Your task to perform on an android device: open a new tab in the chrome app Image 0: 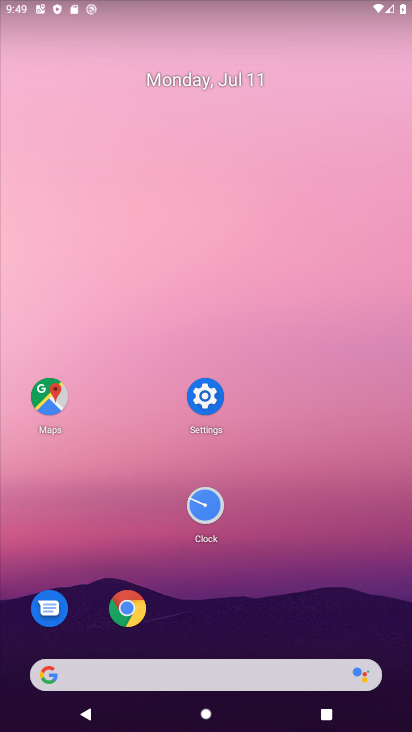
Step 0: click (132, 598)
Your task to perform on an android device: open a new tab in the chrome app Image 1: 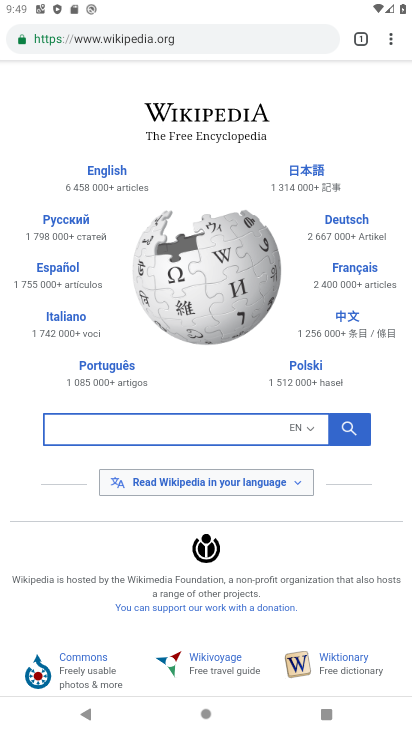
Step 1: click (392, 38)
Your task to perform on an android device: open a new tab in the chrome app Image 2: 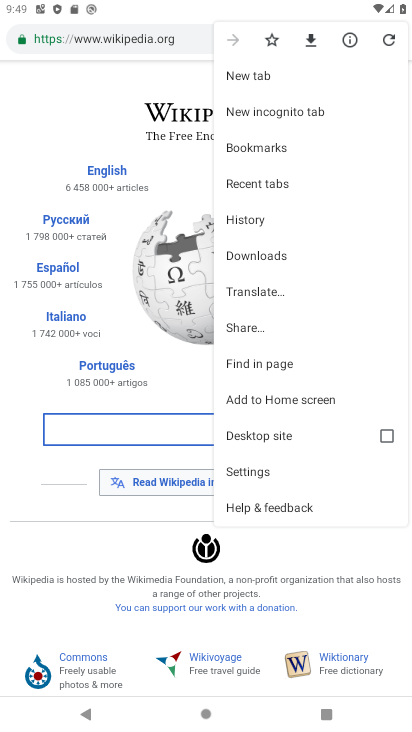
Step 2: click (253, 80)
Your task to perform on an android device: open a new tab in the chrome app Image 3: 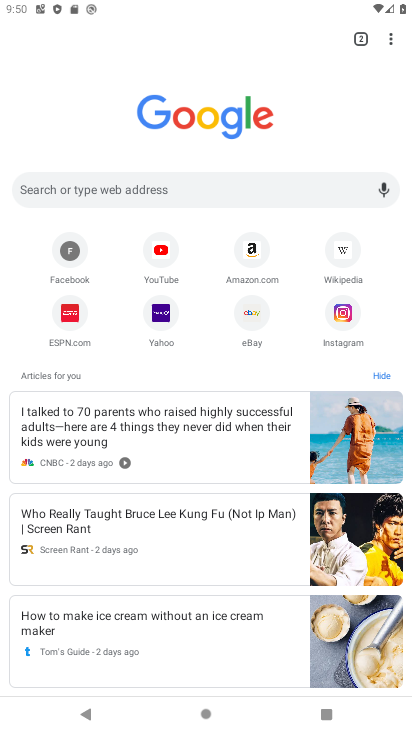
Step 3: task complete